Your task to perform on an android device: Show me the alarms in the clock app Image 0: 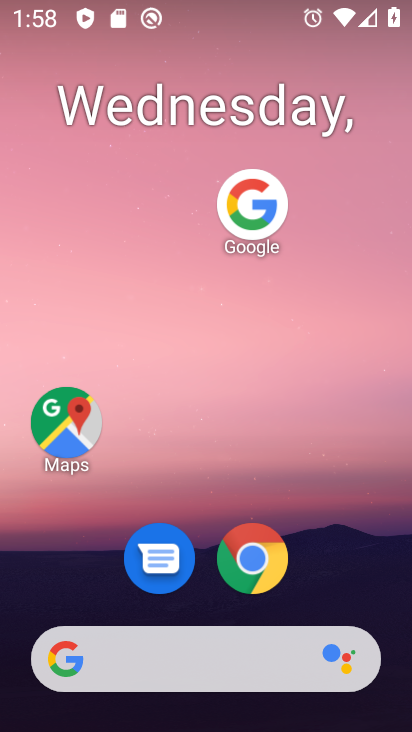
Step 0: drag from (396, 596) to (348, 166)
Your task to perform on an android device: Show me the alarms in the clock app Image 1: 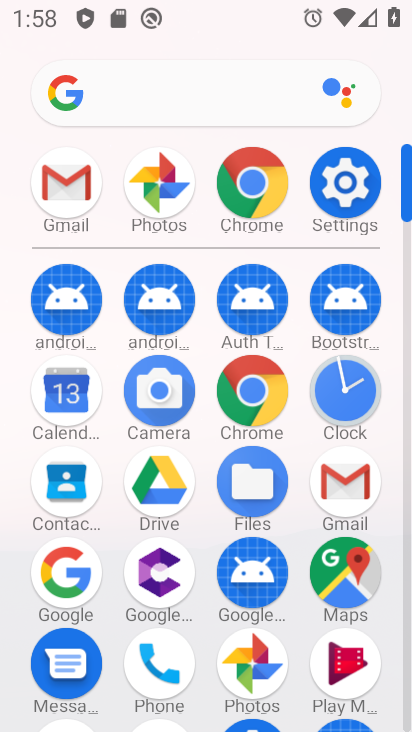
Step 1: click (354, 393)
Your task to perform on an android device: Show me the alarms in the clock app Image 2: 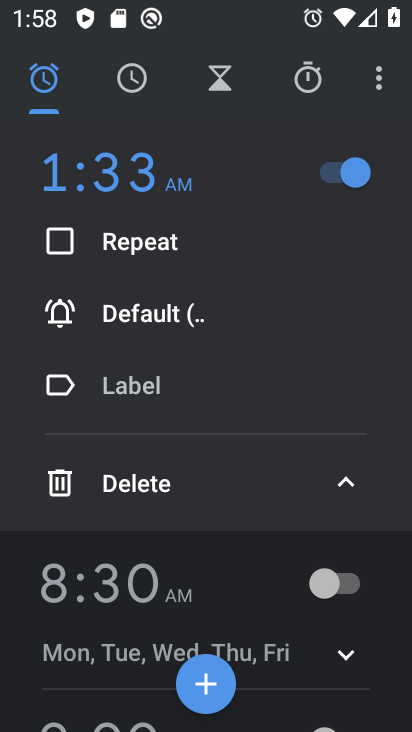
Step 2: task complete